Your task to perform on an android device: turn on javascript in the chrome app Image 0: 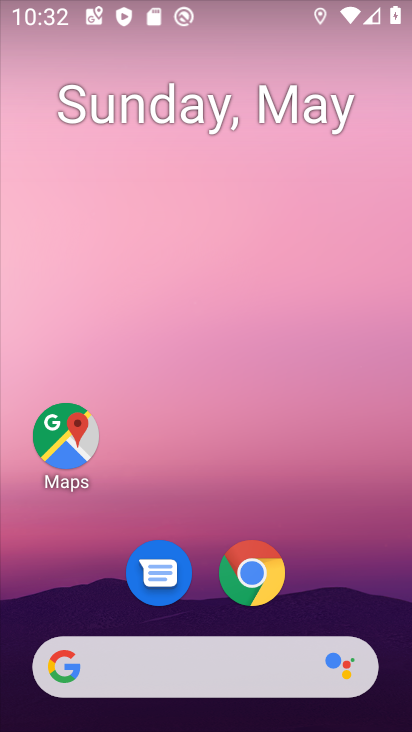
Step 0: click (251, 573)
Your task to perform on an android device: turn on javascript in the chrome app Image 1: 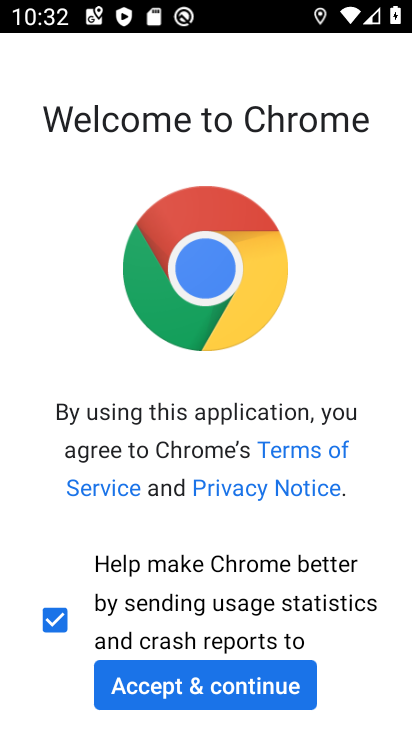
Step 1: click (179, 679)
Your task to perform on an android device: turn on javascript in the chrome app Image 2: 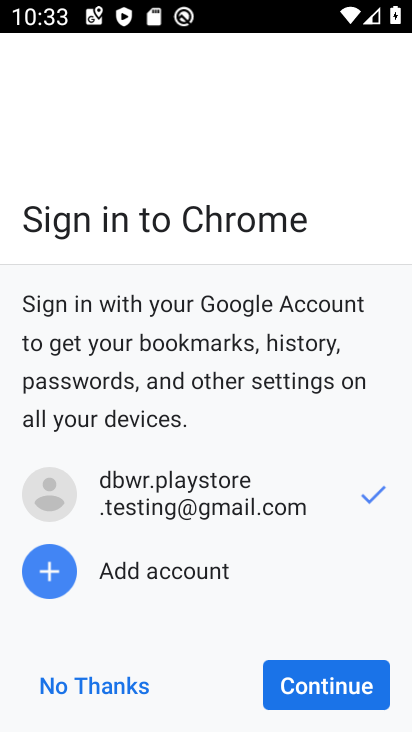
Step 2: click (317, 705)
Your task to perform on an android device: turn on javascript in the chrome app Image 3: 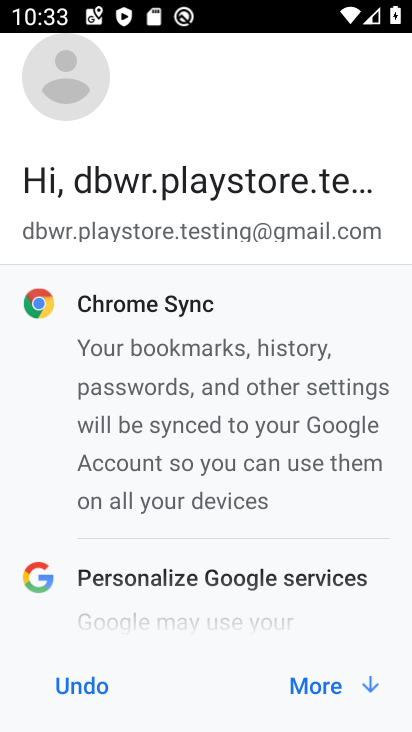
Step 3: click (340, 691)
Your task to perform on an android device: turn on javascript in the chrome app Image 4: 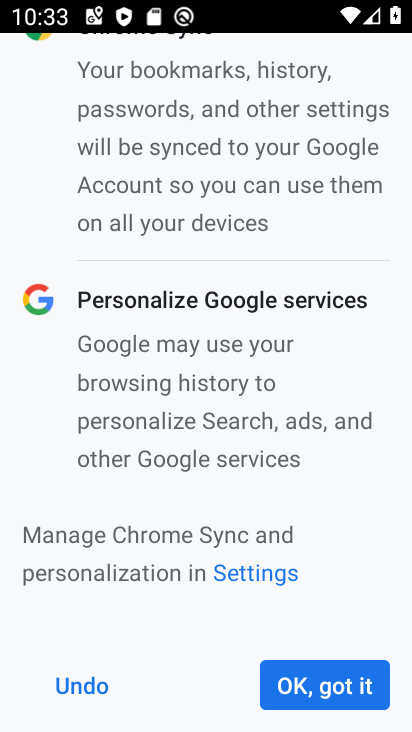
Step 4: click (294, 691)
Your task to perform on an android device: turn on javascript in the chrome app Image 5: 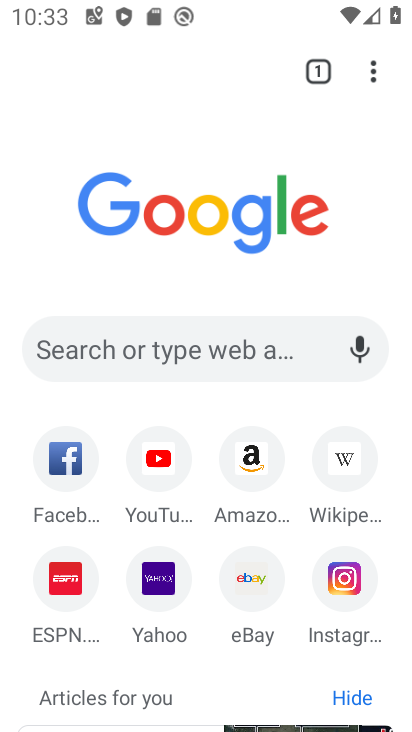
Step 5: click (367, 70)
Your task to perform on an android device: turn on javascript in the chrome app Image 6: 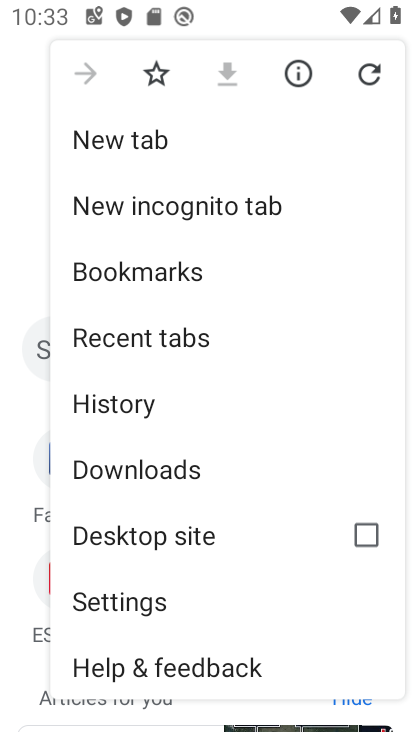
Step 6: click (119, 603)
Your task to perform on an android device: turn on javascript in the chrome app Image 7: 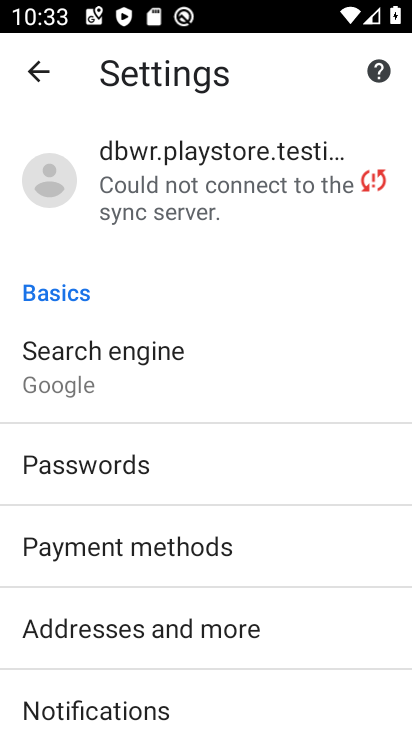
Step 7: drag from (158, 657) to (262, 224)
Your task to perform on an android device: turn on javascript in the chrome app Image 8: 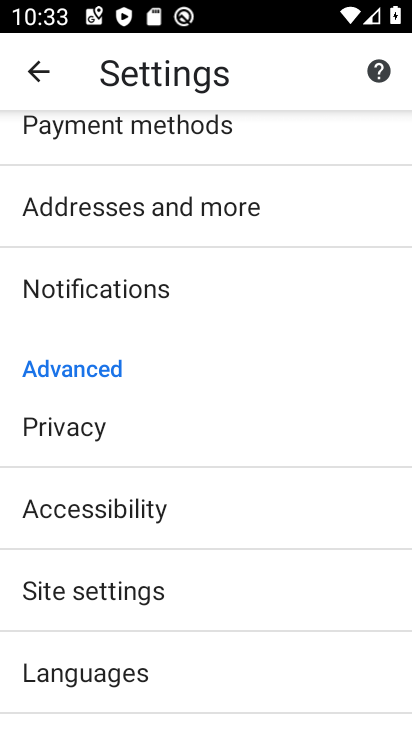
Step 8: drag from (177, 644) to (237, 310)
Your task to perform on an android device: turn on javascript in the chrome app Image 9: 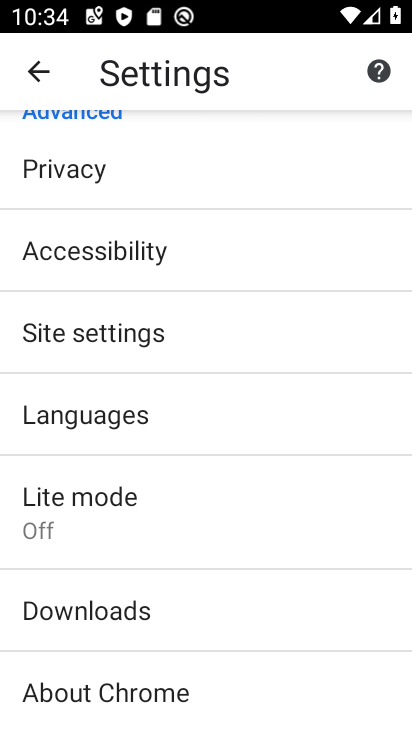
Step 9: click (105, 344)
Your task to perform on an android device: turn on javascript in the chrome app Image 10: 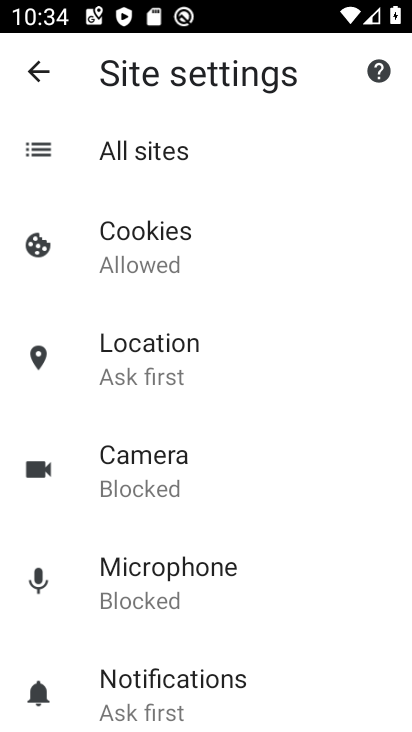
Step 10: drag from (207, 506) to (268, 212)
Your task to perform on an android device: turn on javascript in the chrome app Image 11: 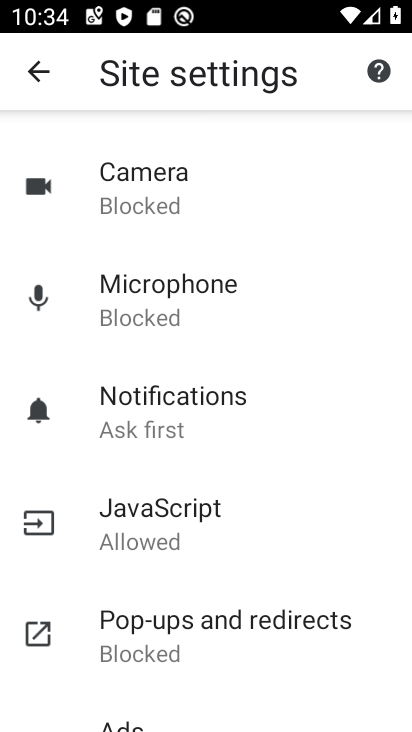
Step 11: click (178, 509)
Your task to perform on an android device: turn on javascript in the chrome app Image 12: 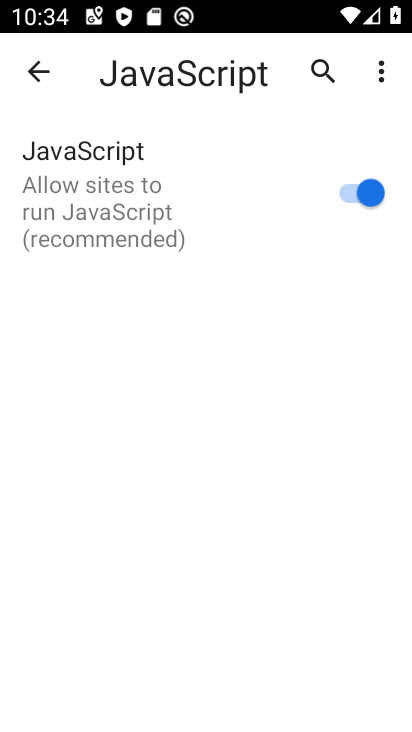
Step 12: task complete